Your task to perform on an android device: toggle pop-ups in chrome Image 0: 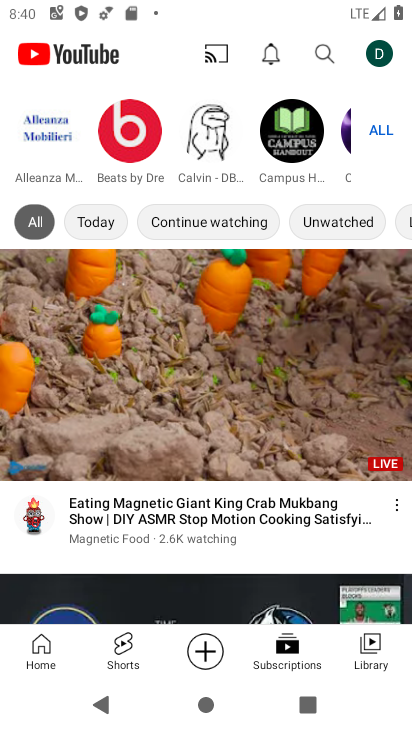
Step 0: press home button
Your task to perform on an android device: toggle pop-ups in chrome Image 1: 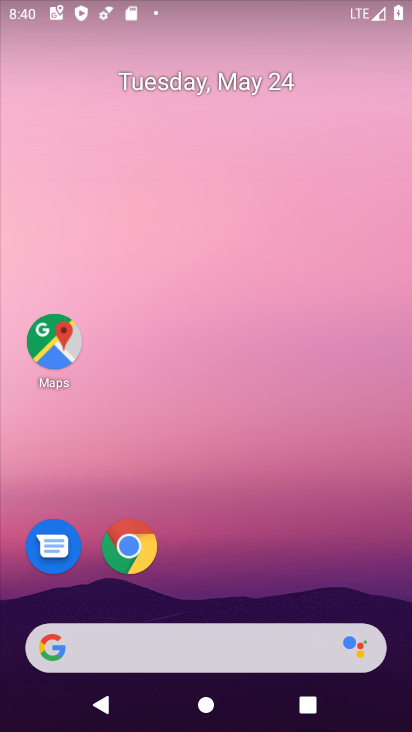
Step 1: click (136, 545)
Your task to perform on an android device: toggle pop-ups in chrome Image 2: 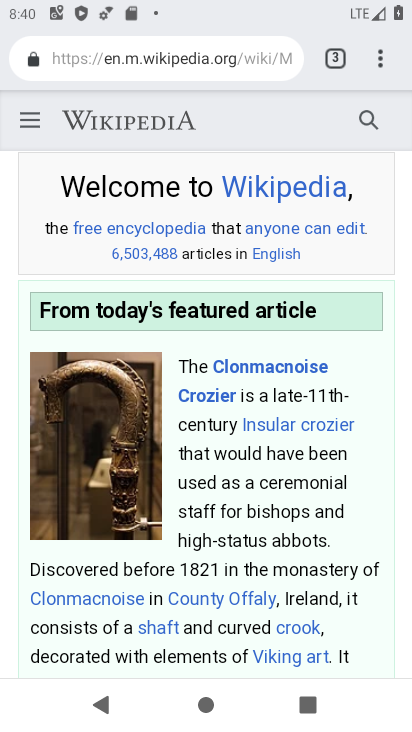
Step 2: click (377, 47)
Your task to perform on an android device: toggle pop-ups in chrome Image 3: 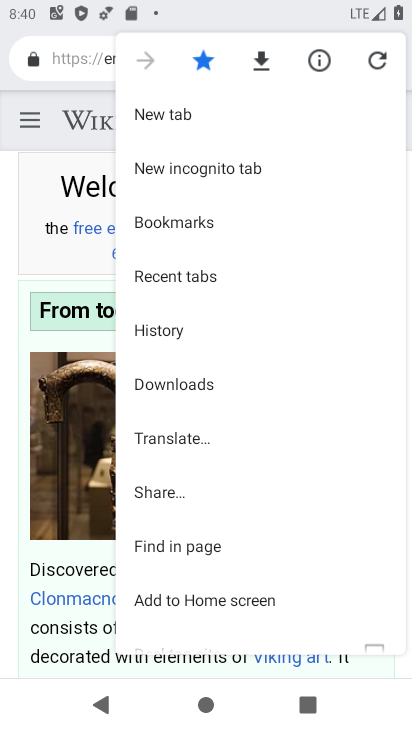
Step 3: drag from (227, 506) to (270, 164)
Your task to perform on an android device: toggle pop-ups in chrome Image 4: 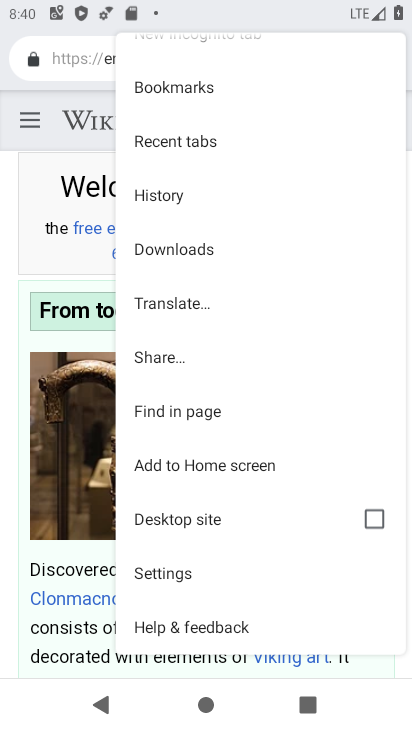
Step 4: click (177, 572)
Your task to perform on an android device: toggle pop-ups in chrome Image 5: 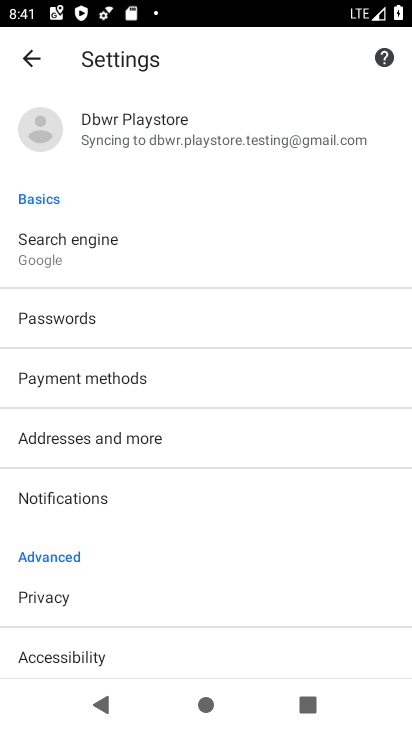
Step 5: drag from (177, 572) to (202, 280)
Your task to perform on an android device: toggle pop-ups in chrome Image 6: 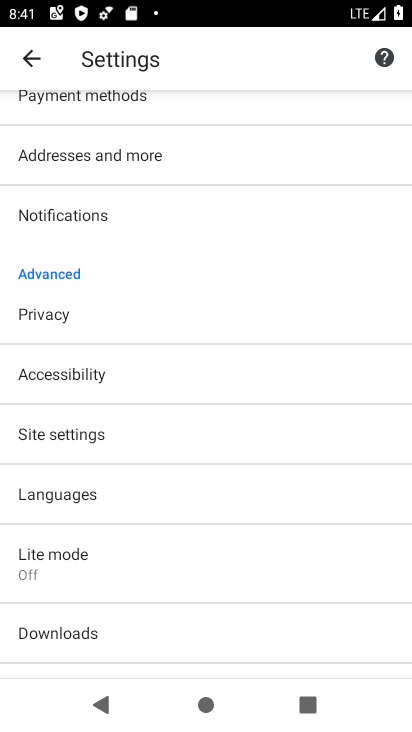
Step 6: click (200, 441)
Your task to perform on an android device: toggle pop-ups in chrome Image 7: 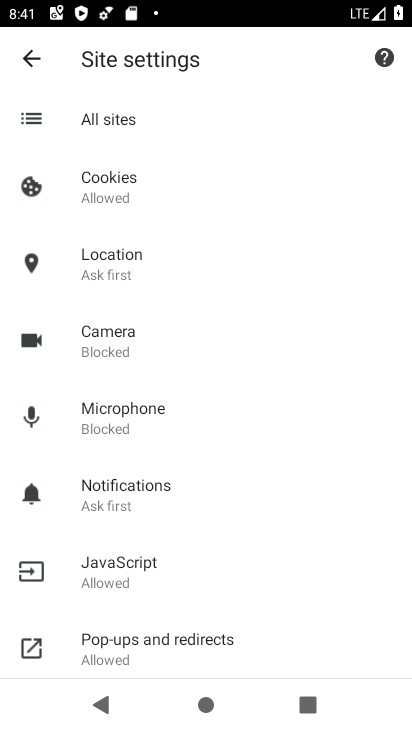
Step 7: click (205, 629)
Your task to perform on an android device: toggle pop-ups in chrome Image 8: 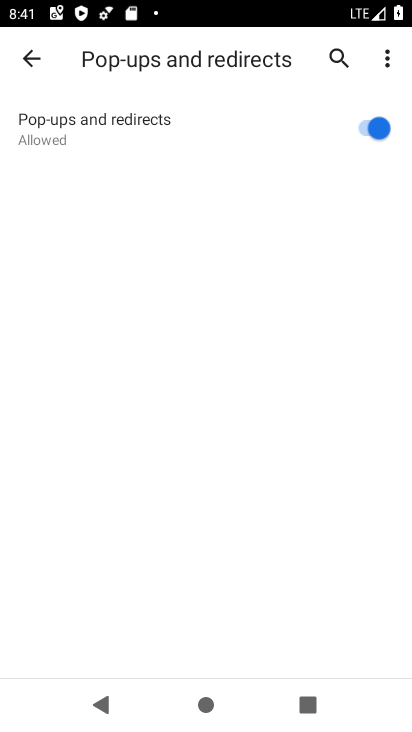
Step 8: click (370, 111)
Your task to perform on an android device: toggle pop-ups in chrome Image 9: 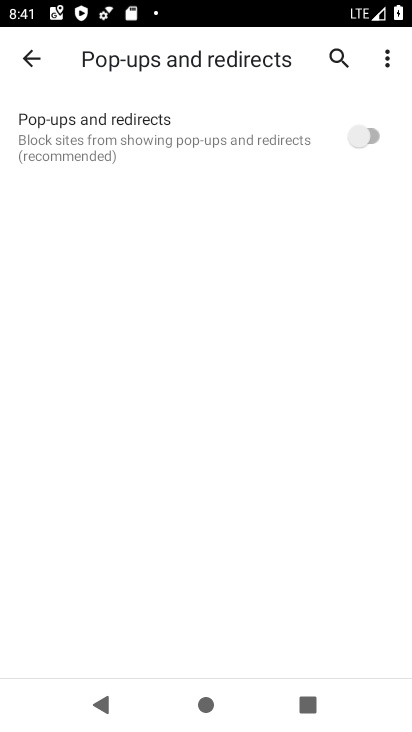
Step 9: task complete